Your task to perform on an android device: star an email in the gmail app Image 0: 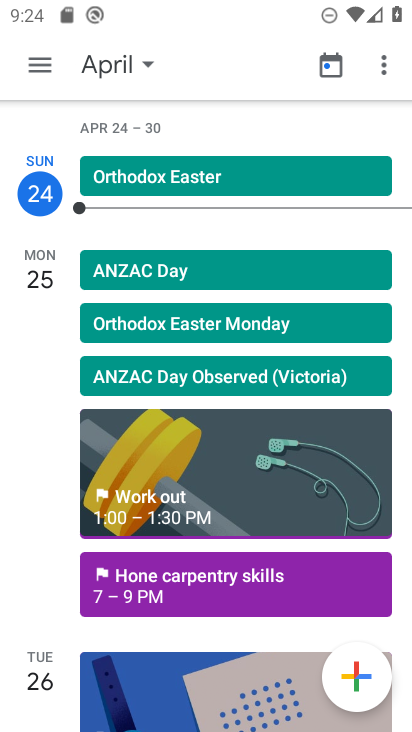
Step 0: press back button
Your task to perform on an android device: star an email in the gmail app Image 1: 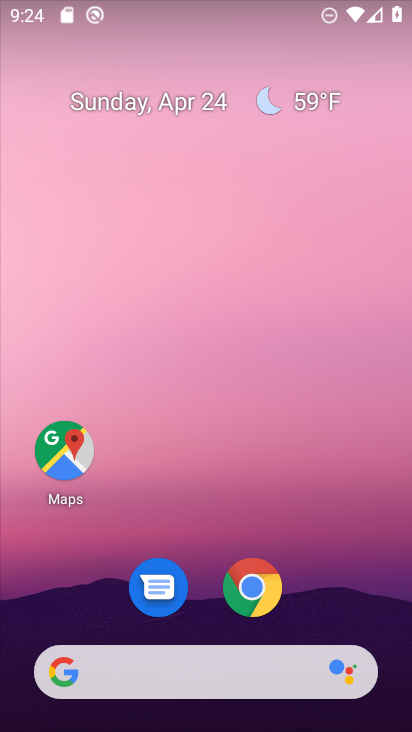
Step 1: drag from (206, 526) to (206, 46)
Your task to perform on an android device: star an email in the gmail app Image 2: 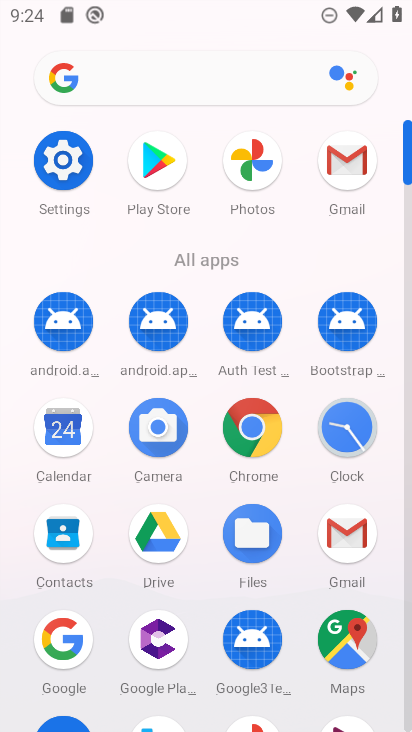
Step 2: click (347, 161)
Your task to perform on an android device: star an email in the gmail app Image 3: 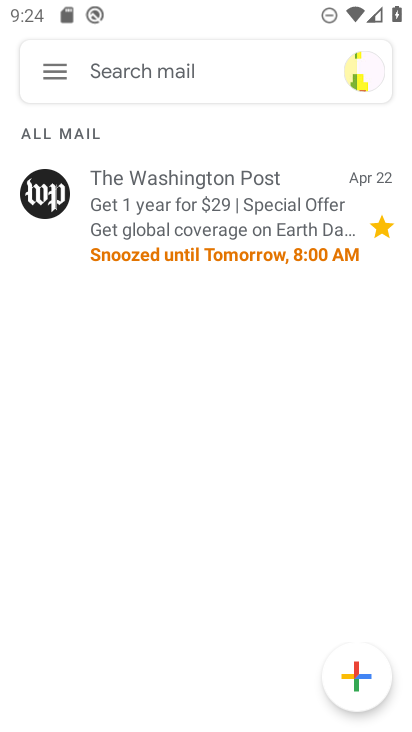
Step 3: click (189, 200)
Your task to perform on an android device: star an email in the gmail app Image 4: 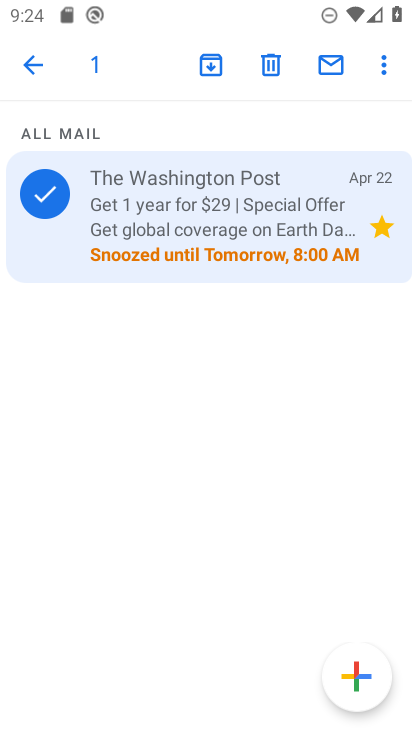
Step 4: click (391, 68)
Your task to perform on an android device: star an email in the gmail app Image 5: 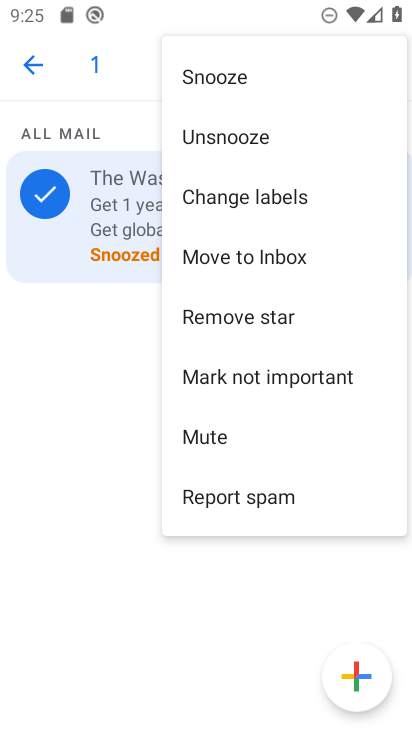
Step 5: click (121, 384)
Your task to perform on an android device: star an email in the gmail app Image 6: 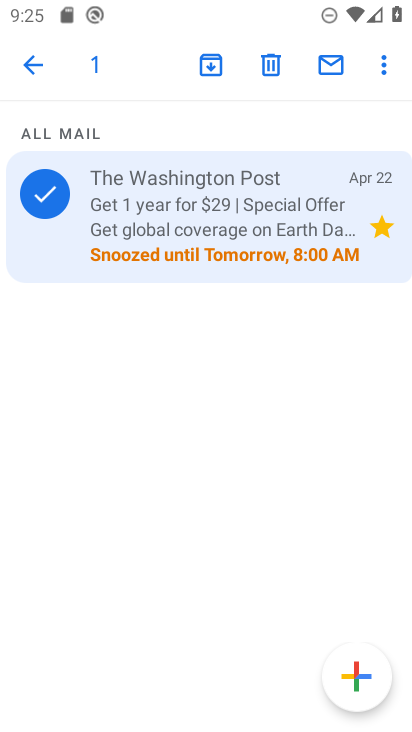
Step 6: click (36, 74)
Your task to perform on an android device: star an email in the gmail app Image 7: 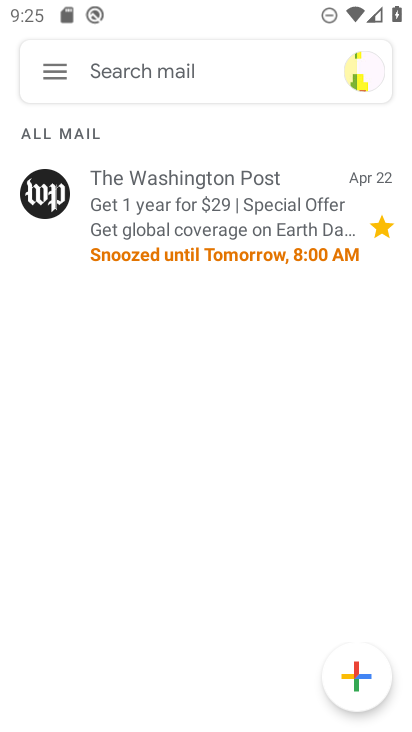
Step 7: click (62, 68)
Your task to perform on an android device: star an email in the gmail app Image 8: 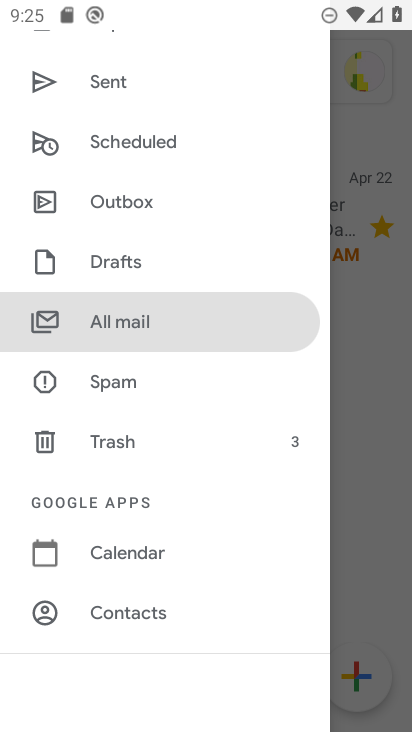
Step 8: click (135, 445)
Your task to perform on an android device: star an email in the gmail app Image 9: 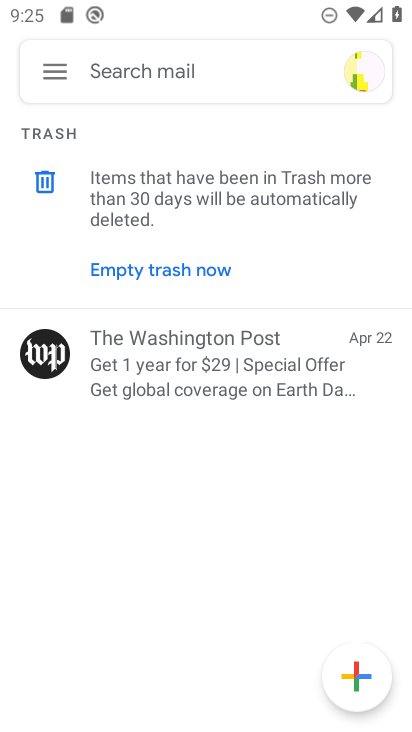
Step 9: click (180, 376)
Your task to perform on an android device: star an email in the gmail app Image 10: 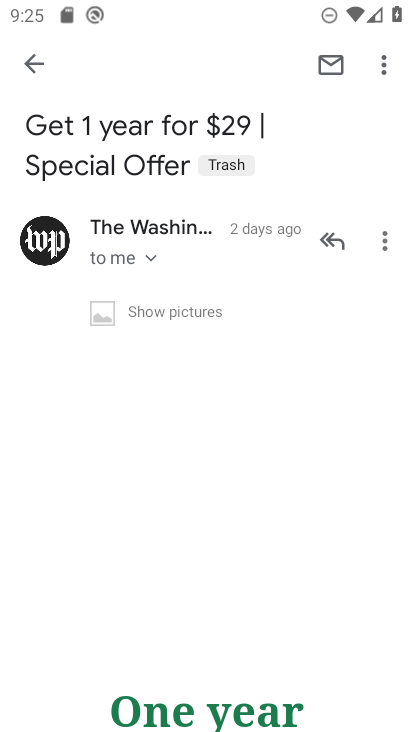
Step 10: click (382, 64)
Your task to perform on an android device: star an email in the gmail app Image 11: 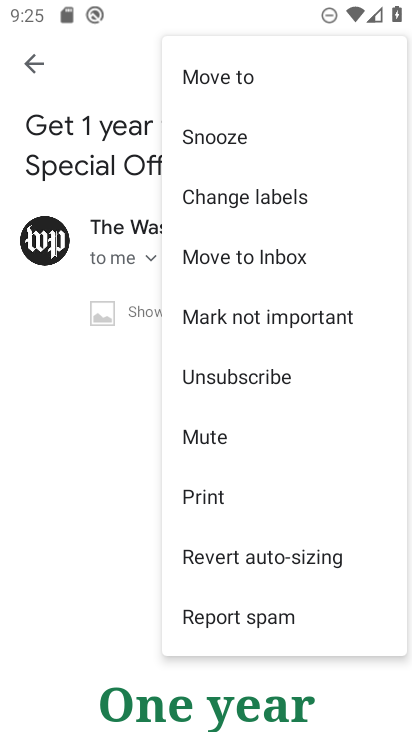
Step 11: click (90, 466)
Your task to perform on an android device: star an email in the gmail app Image 12: 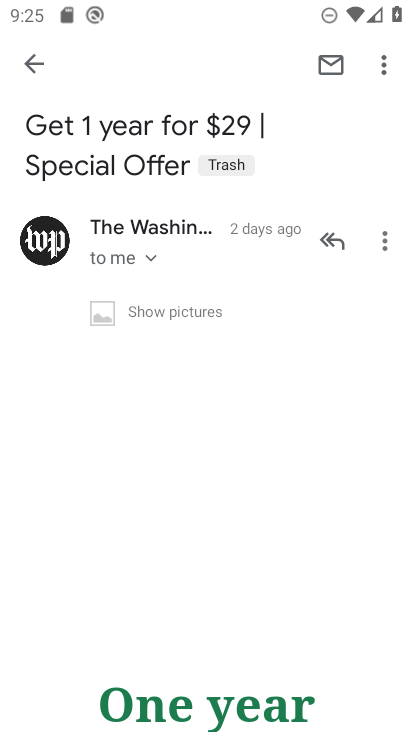
Step 12: click (39, 63)
Your task to perform on an android device: star an email in the gmail app Image 13: 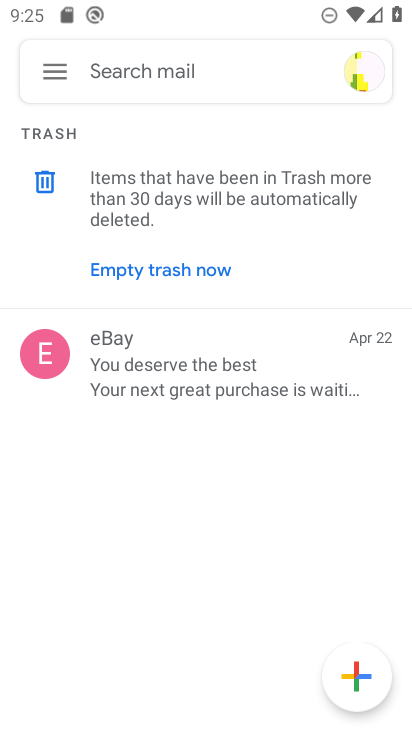
Step 13: click (163, 382)
Your task to perform on an android device: star an email in the gmail app Image 14: 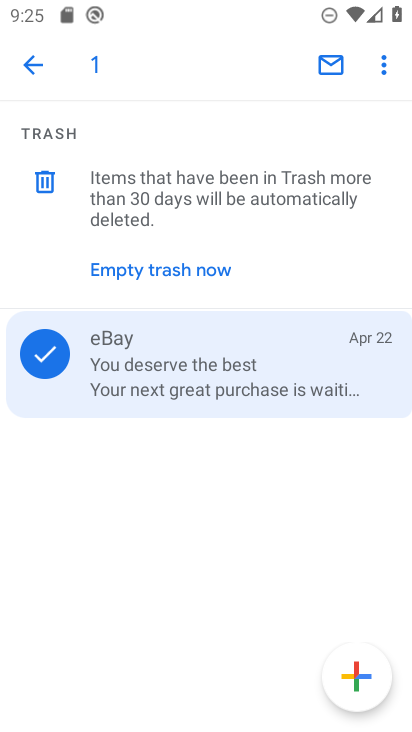
Step 14: click (383, 69)
Your task to perform on an android device: star an email in the gmail app Image 15: 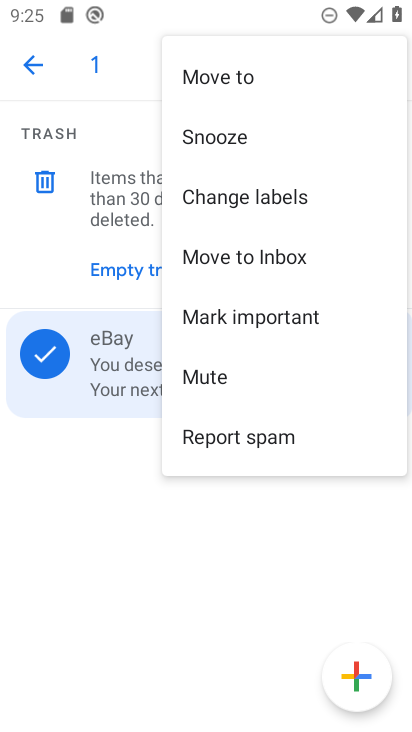
Step 15: click (21, 71)
Your task to perform on an android device: star an email in the gmail app Image 16: 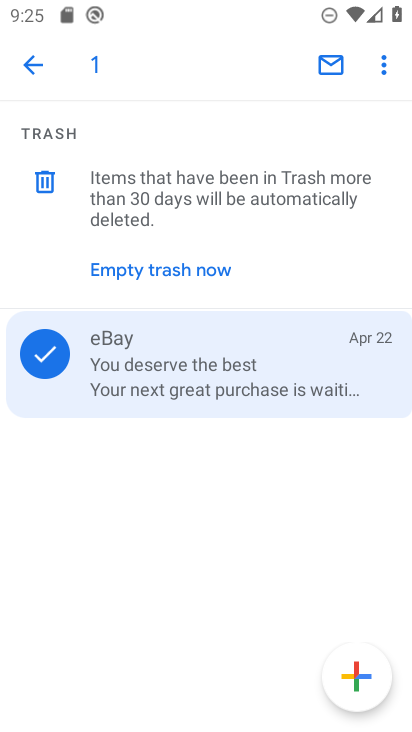
Step 16: click (23, 67)
Your task to perform on an android device: star an email in the gmail app Image 17: 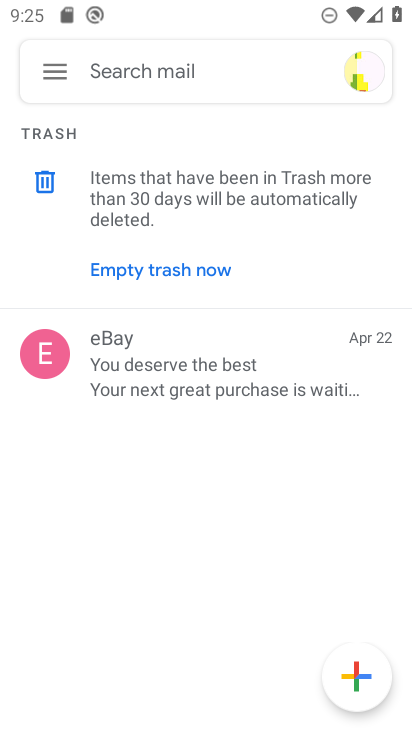
Step 17: click (62, 73)
Your task to perform on an android device: star an email in the gmail app Image 18: 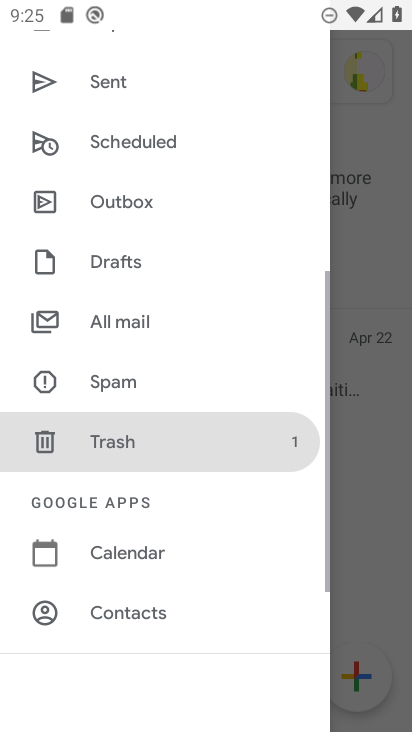
Step 18: drag from (142, 197) to (134, 454)
Your task to perform on an android device: star an email in the gmail app Image 19: 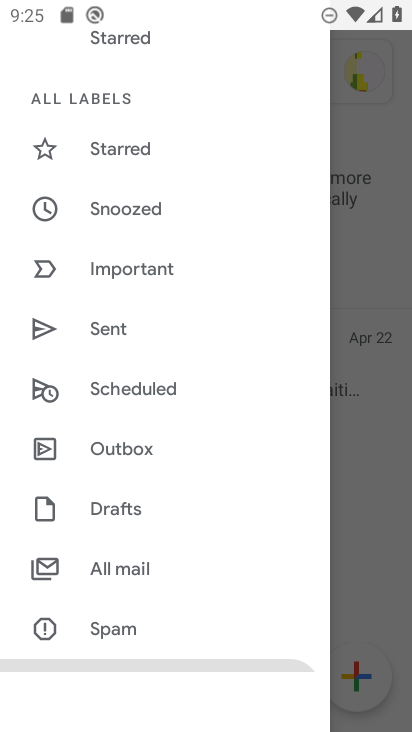
Step 19: drag from (117, 203) to (161, 411)
Your task to perform on an android device: star an email in the gmail app Image 20: 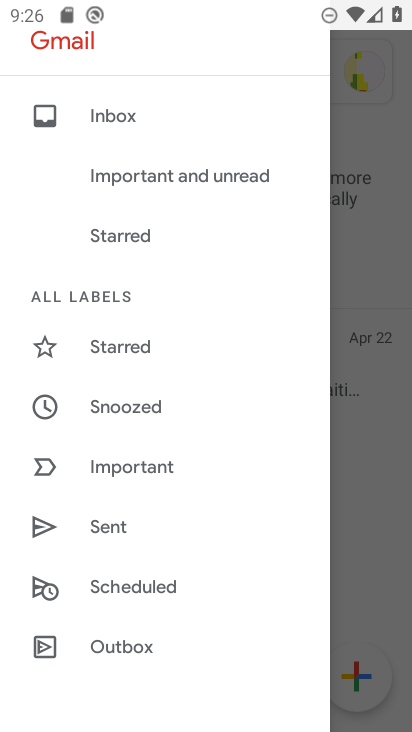
Step 20: click (112, 125)
Your task to perform on an android device: star an email in the gmail app Image 21: 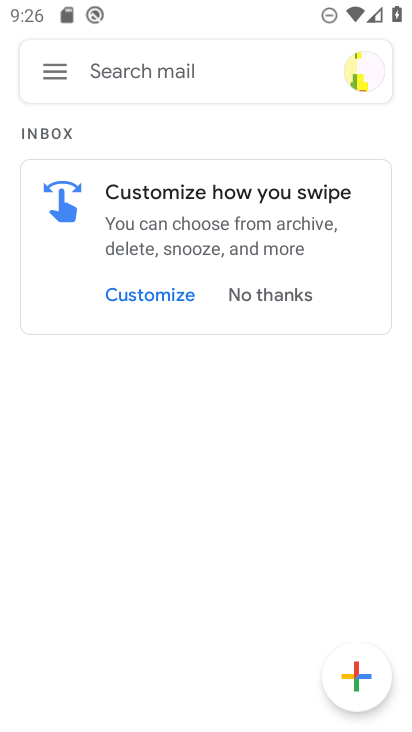
Step 21: click (280, 289)
Your task to perform on an android device: star an email in the gmail app Image 22: 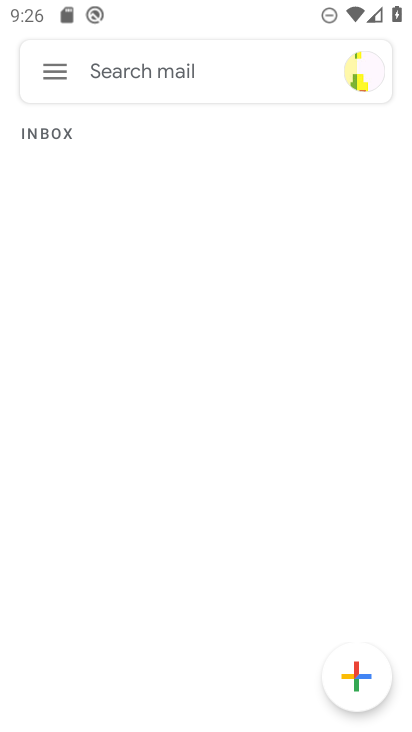
Step 22: click (62, 78)
Your task to perform on an android device: star an email in the gmail app Image 23: 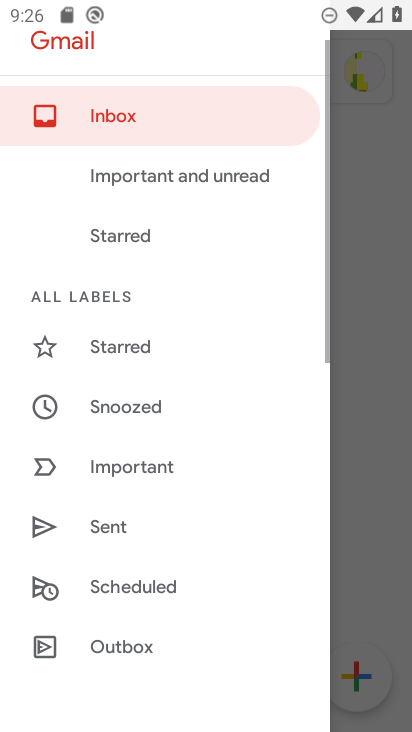
Step 23: drag from (179, 360) to (195, 282)
Your task to perform on an android device: star an email in the gmail app Image 24: 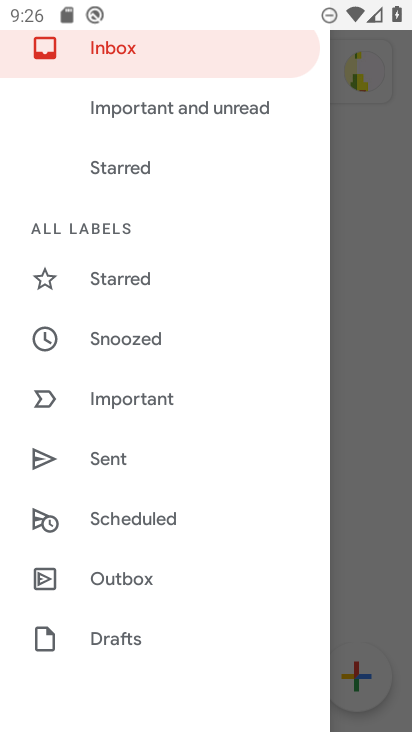
Step 24: drag from (187, 465) to (200, 372)
Your task to perform on an android device: star an email in the gmail app Image 25: 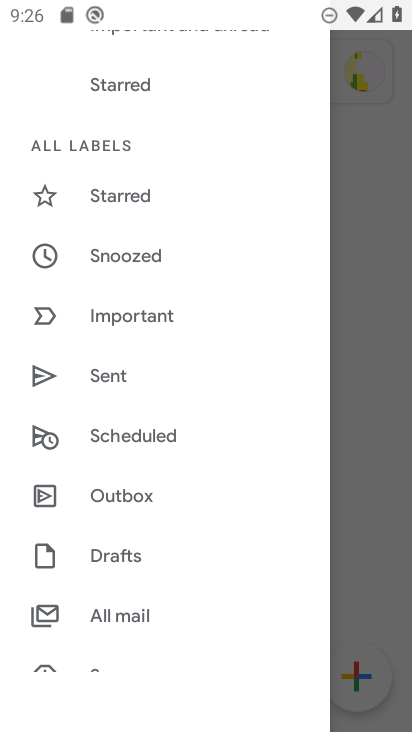
Step 25: click (119, 602)
Your task to perform on an android device: star an email in the gmail app Image 26: 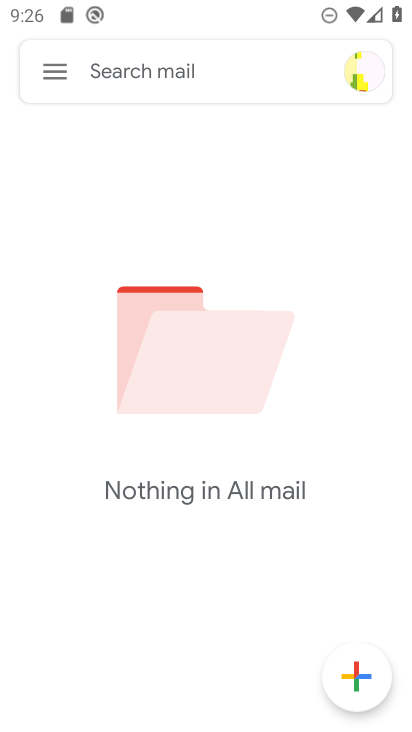
Step 26: click (38, 69)
Your task to perform on an android device: star an email in the gmail app Image 27: 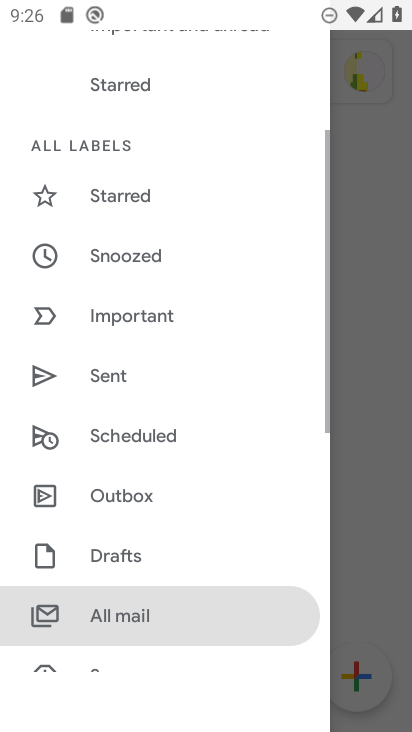
Step 27: drag from (134, 476) to (152, 278)
Your task to perform on an android device: star an email in the gmail app Image 28: 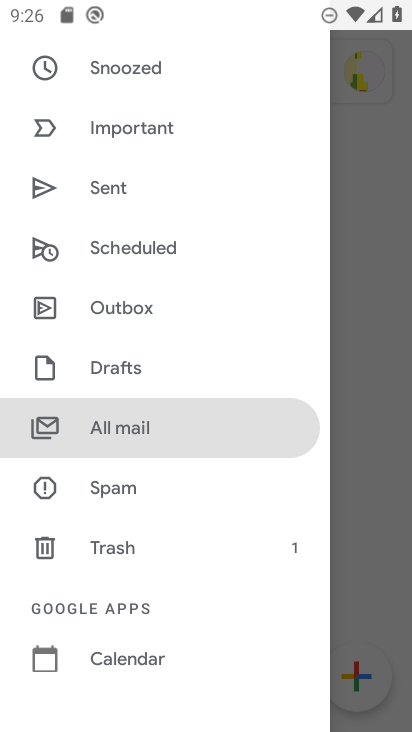
Step 28: click (144, 481)
Your task to perform on an android device: star an email in the gmail app Image 29: 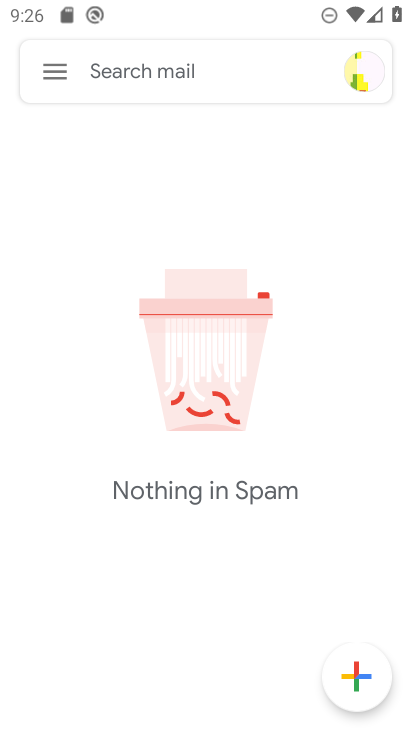
Step 29: task complete